Your task to perform on an android device: turn on javascript in the chrome app Image 0: 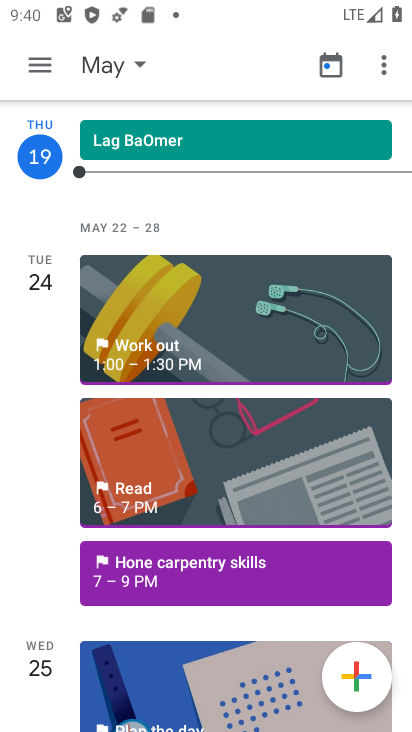
Step 0: press home button
Your task to perform on an android device: turn on javascript in the chrome app Image 1: 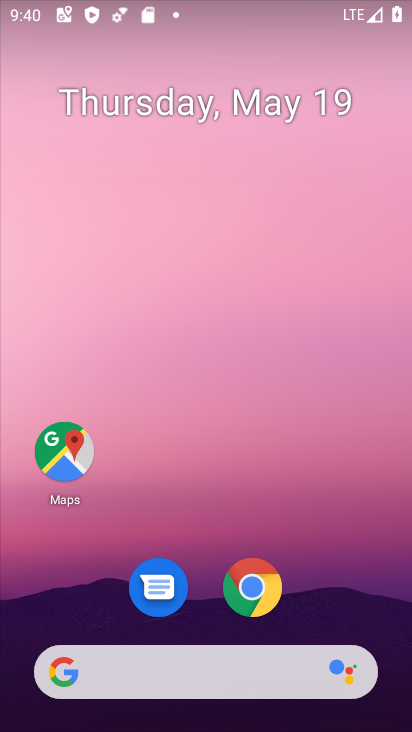
Step 1: click (256, 593)
Your task to perform on an android device: turn on javascript in the chrome app Image 2: 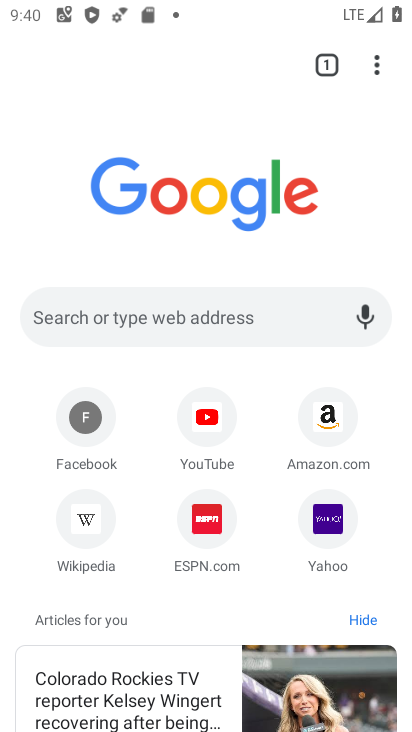
Step 2: click (377, 68)
Your task to perform on an android device: turn on javascript in the chrome app Image 3: 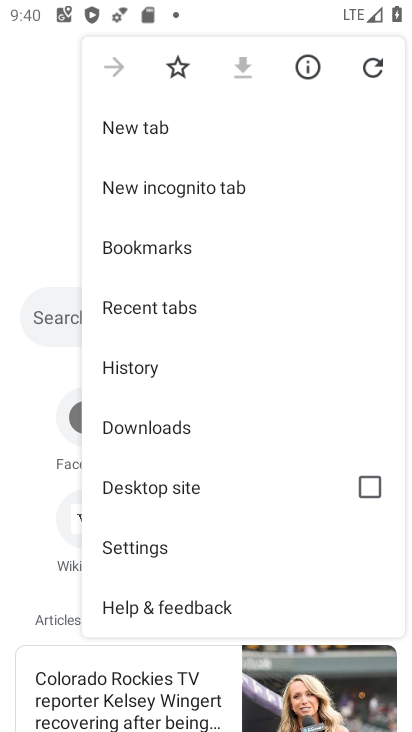
Step 3: click (167, 563)
Your task to perform on an android device: turn on javascript in the chrome app Image 4: 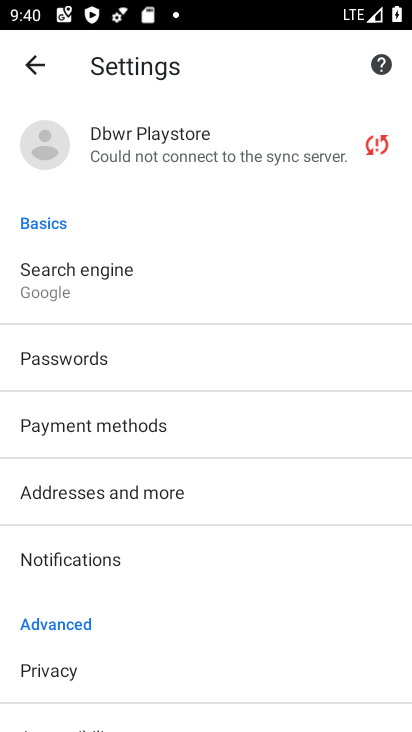
Step 4: drag from (167, 563) to (199, 89)
Your task to perform on an android device: turn on javascript in the chrome app Image 5: 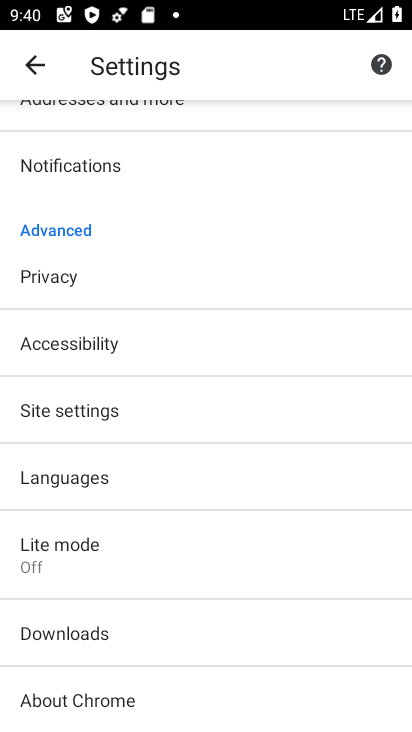
Step 5: click (122, 408)
Your task to perform on an android device: turn on javascript in the chrome app Image 6: 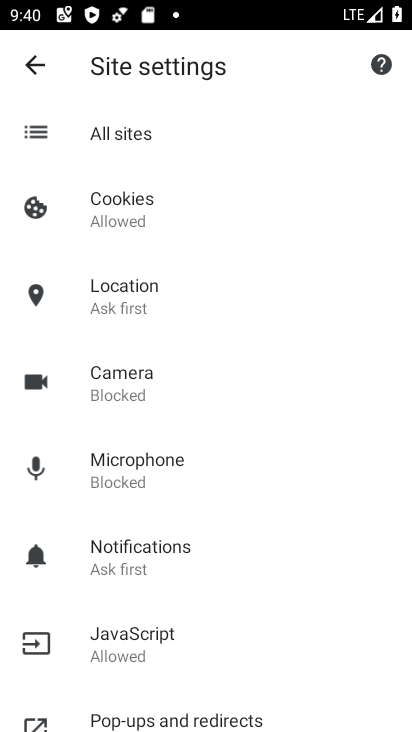
Step 6: click (101, 642)
Your task to perform on an android device: turn on javascript in the chrome app Image 7: 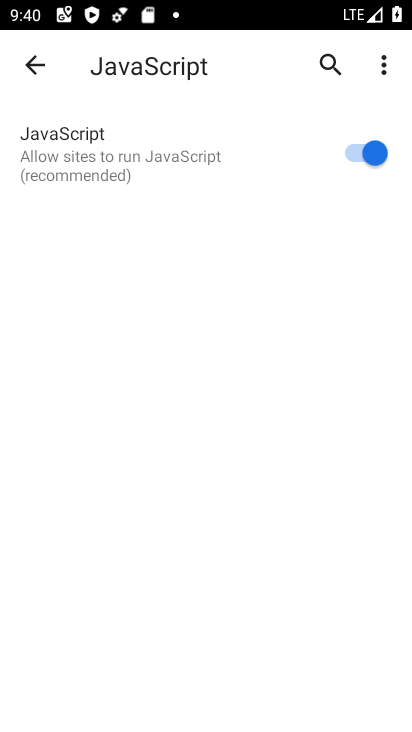
Step 7: task complete